Your task to perform on an android device: empty trash in google photos Image 0: 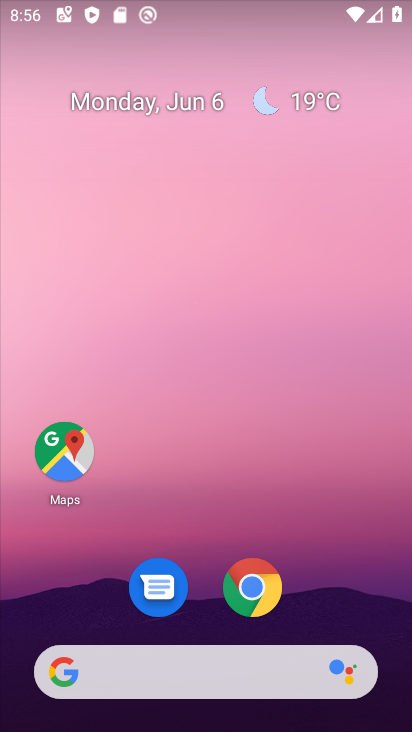
Step 0: drag from (243, 658) to (233, 188)
Your task to perform on an android device: empty trash in google photos Image 1: 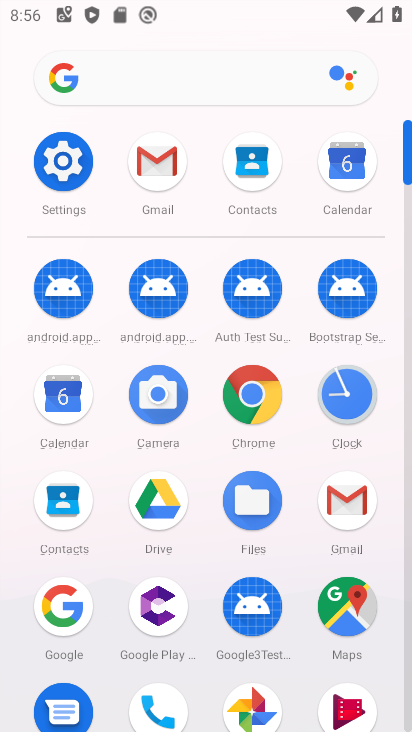
Step 1: click (252, 689)
Your task to perform on an android device: empty trash in google photos Image 2: 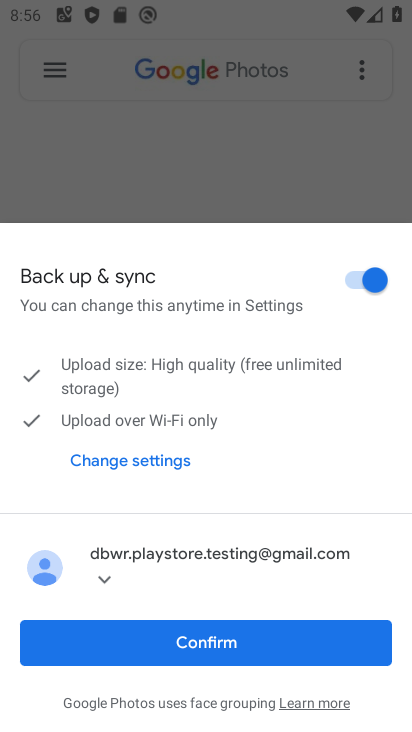
Step 2: click (257, 648)
Your task to perform on an android device: empty trash in google photos Image 3: 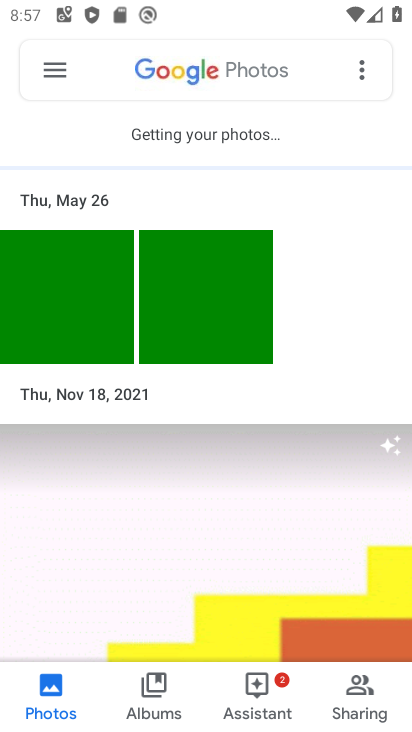
Step 3: click (56, 73)
Your task to perform on an android device: empty trash in google photos Image 4: 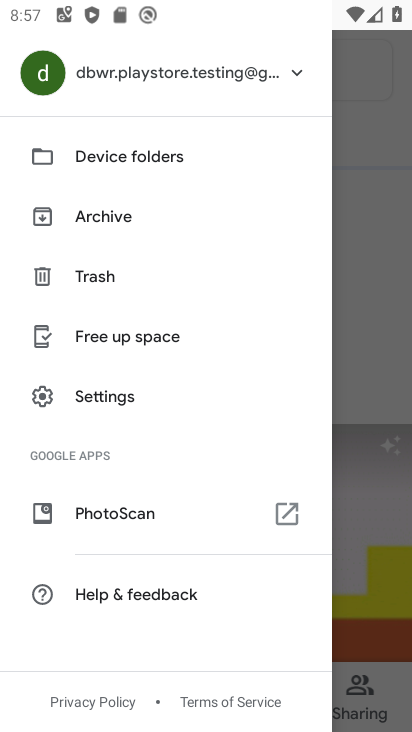
Step 4: click (103, 266)
Your task to perform on an android device: empty trash in google photos Image 5: 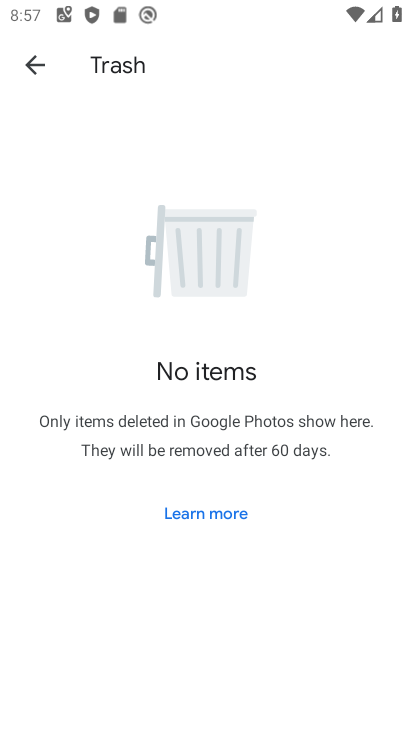
Step 5: task complete